Your task to perform on an android device: Go to network settings Image 0: 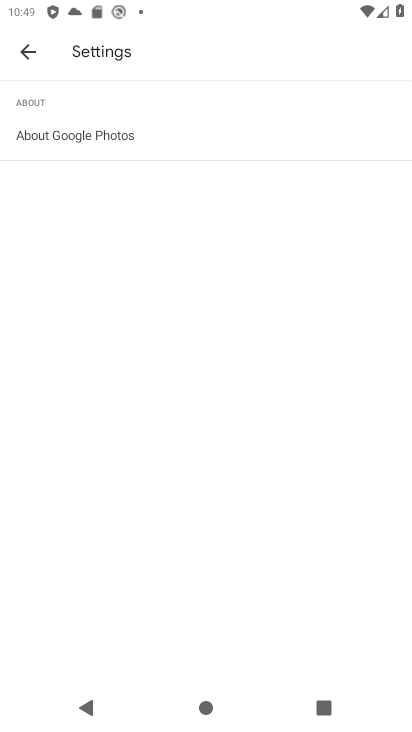
Step 0: press home button
Your task to perform on an android device: Go to network settings Image 1: 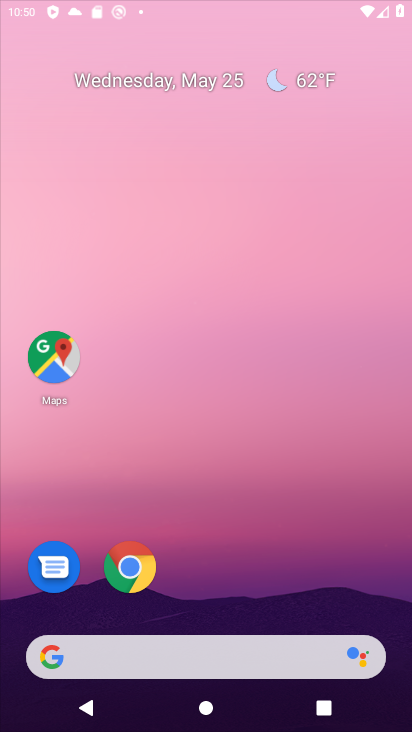
Step 1: drag from (350, 564) to (263, 5)
Your task to perform on an android device: Go to network settings Image 2: 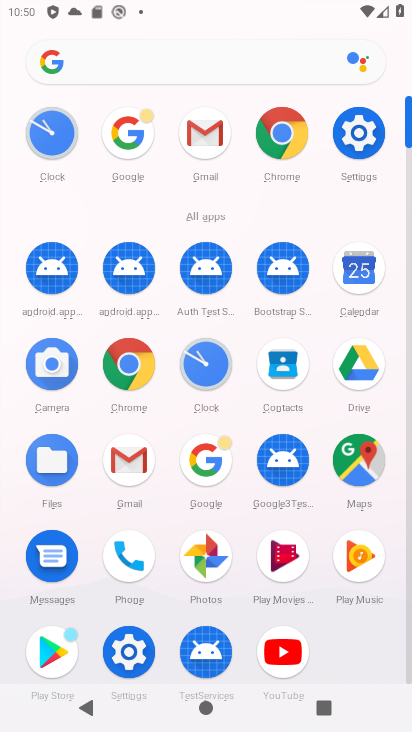
Step 2: click (362, 147)
Your task to perform on an android device: Go to network settings Image 3: 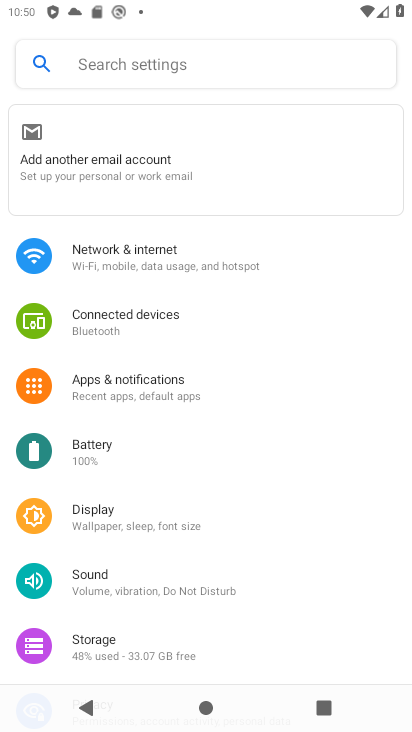
Step 3: click (84, 273)
Your task to perform on an android device: Go to network settings Image 4: 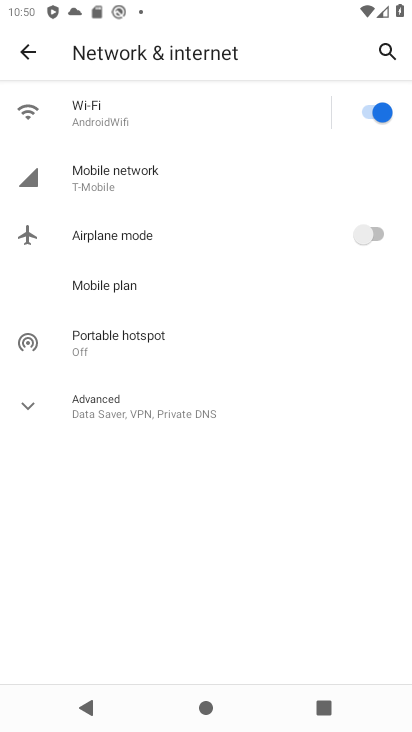
Step 4: task complete